Your task to perform on an android device: Open Google Maps Image 0: 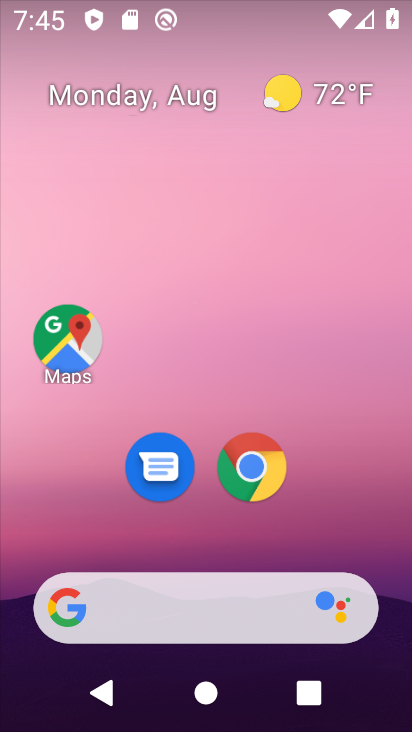
Step 0: press home button
Your task to perform on an android device: Open Google Maps Image 1: 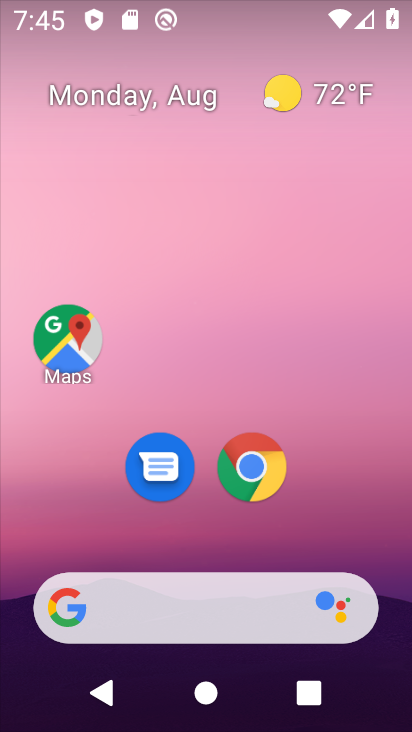
Step 1: drag from (369, 539) to (359, 146)
Your task to perform on an android device: Open Google Maps Image 2: 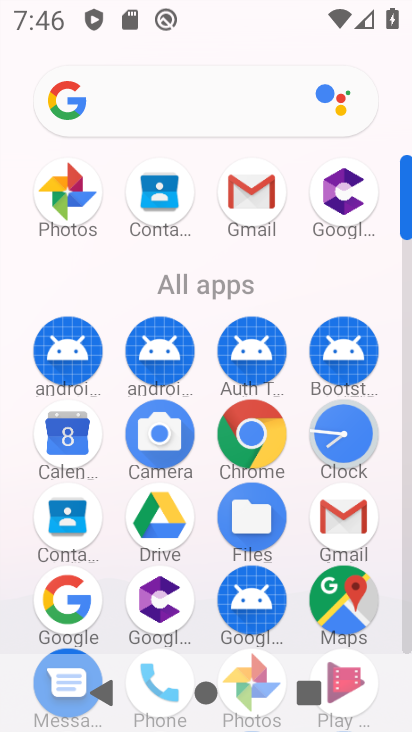
Step 2: click (354, 600)
Your task to perform on an android device: Open Google Maps Image 3: 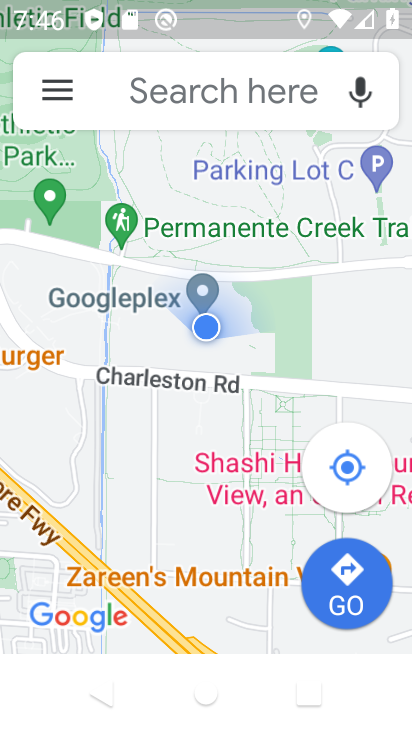
Step 3: task complete